Your task to perform on an android device: Search for "logitech g pro" on newegg.com, select the first entry, add it to the cart, then select checkout. Image 0: 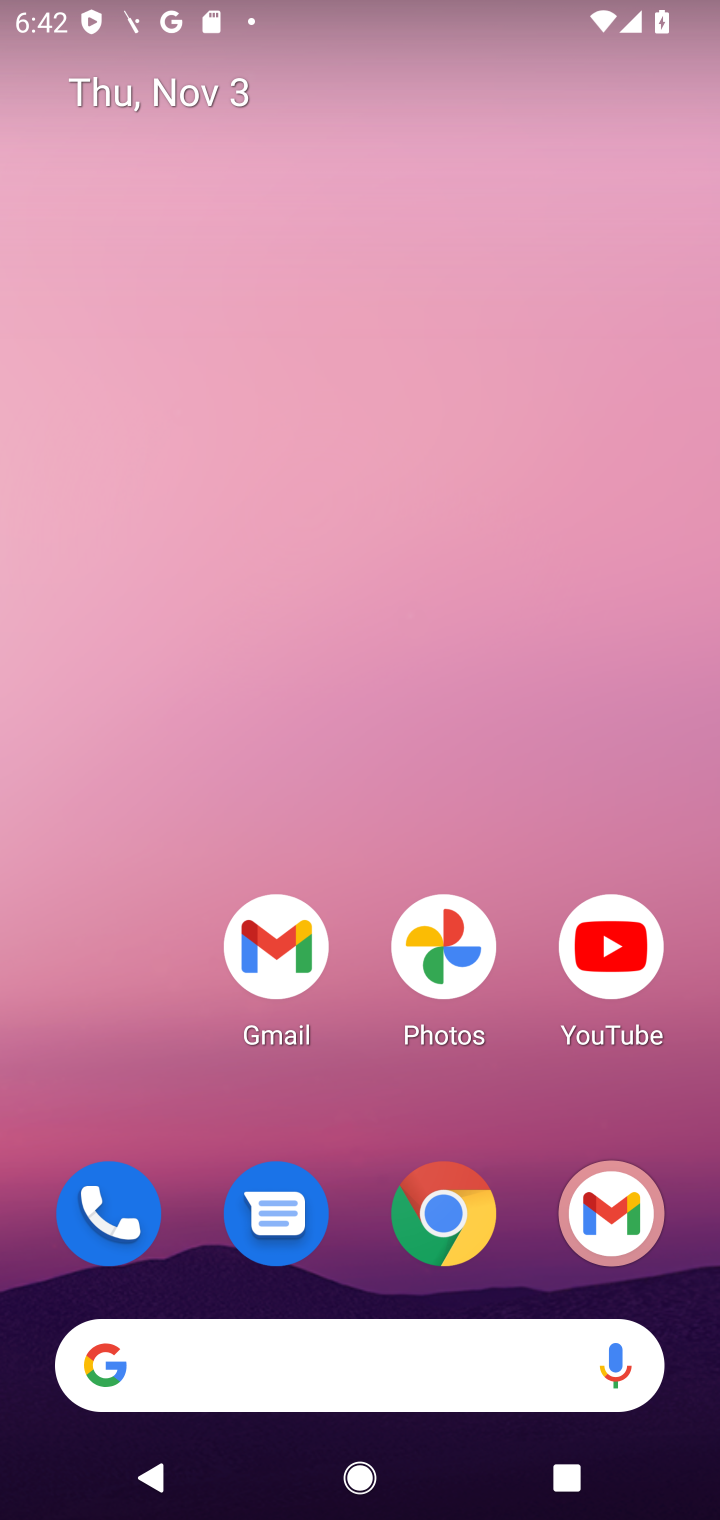
Step 0: click (445, 1236)
Your task to perform on an android device: Search for "logitech g pro" on newegg.com, select the first entry, add it to the cart, then select checkout. Image 1: 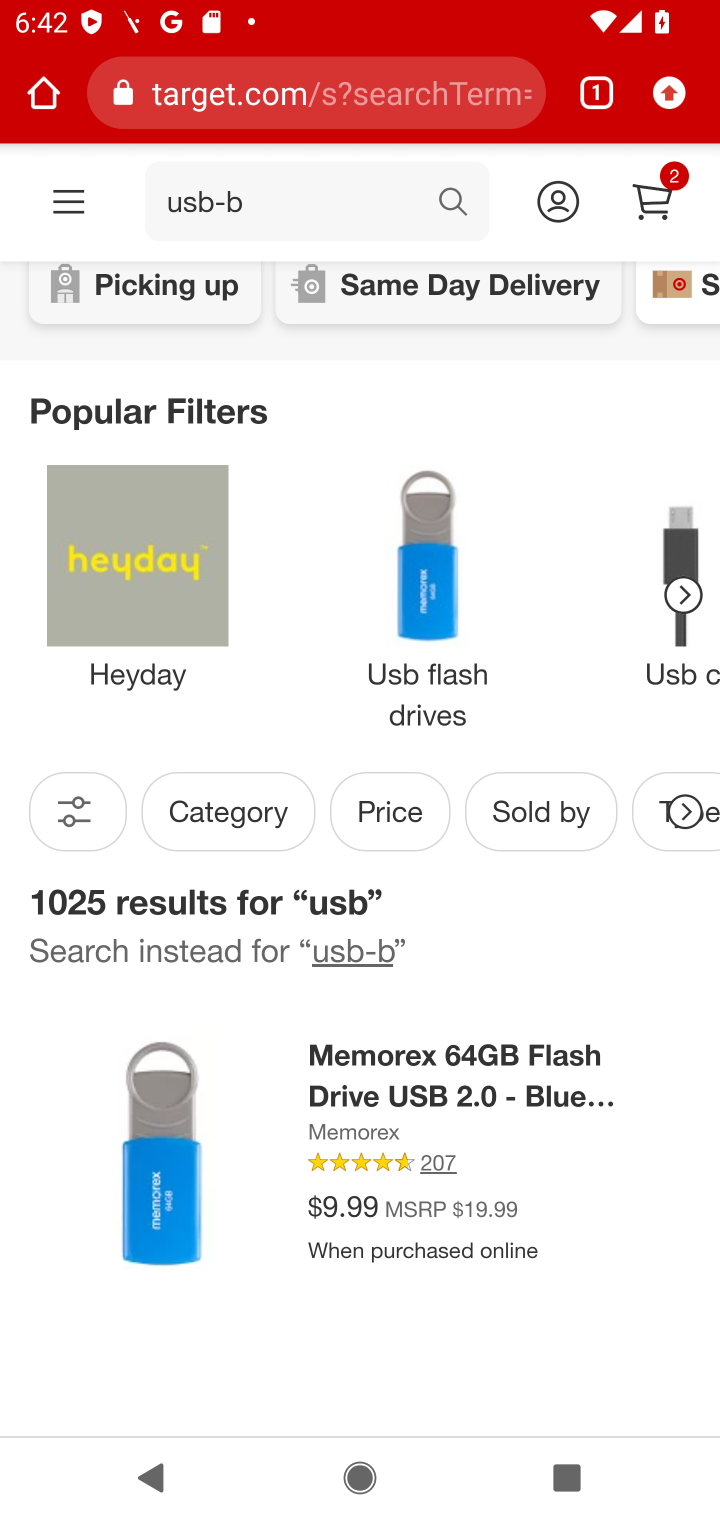
Step 1: click (387, 107)
Your task to perform on an android device: Search for "logitech g pro" on newegg.com, select the first entry, add it to the cart, then select checkout. Image 2: 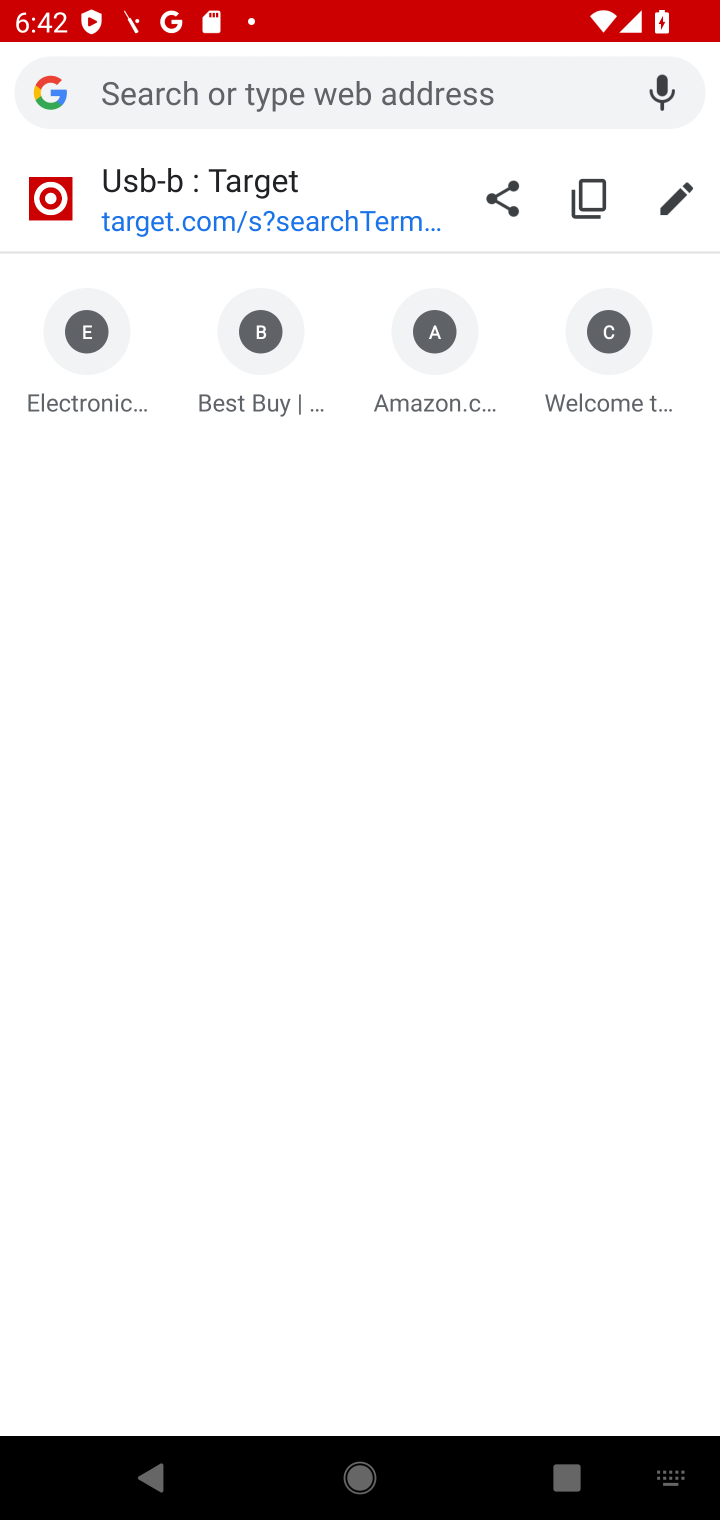
Step 2: type "newegg.com"
Your task to perform on an android device: Search for "logitech g pro" on newegg.com, select the first entry, add it to the cart, then select checkout. Image 3: 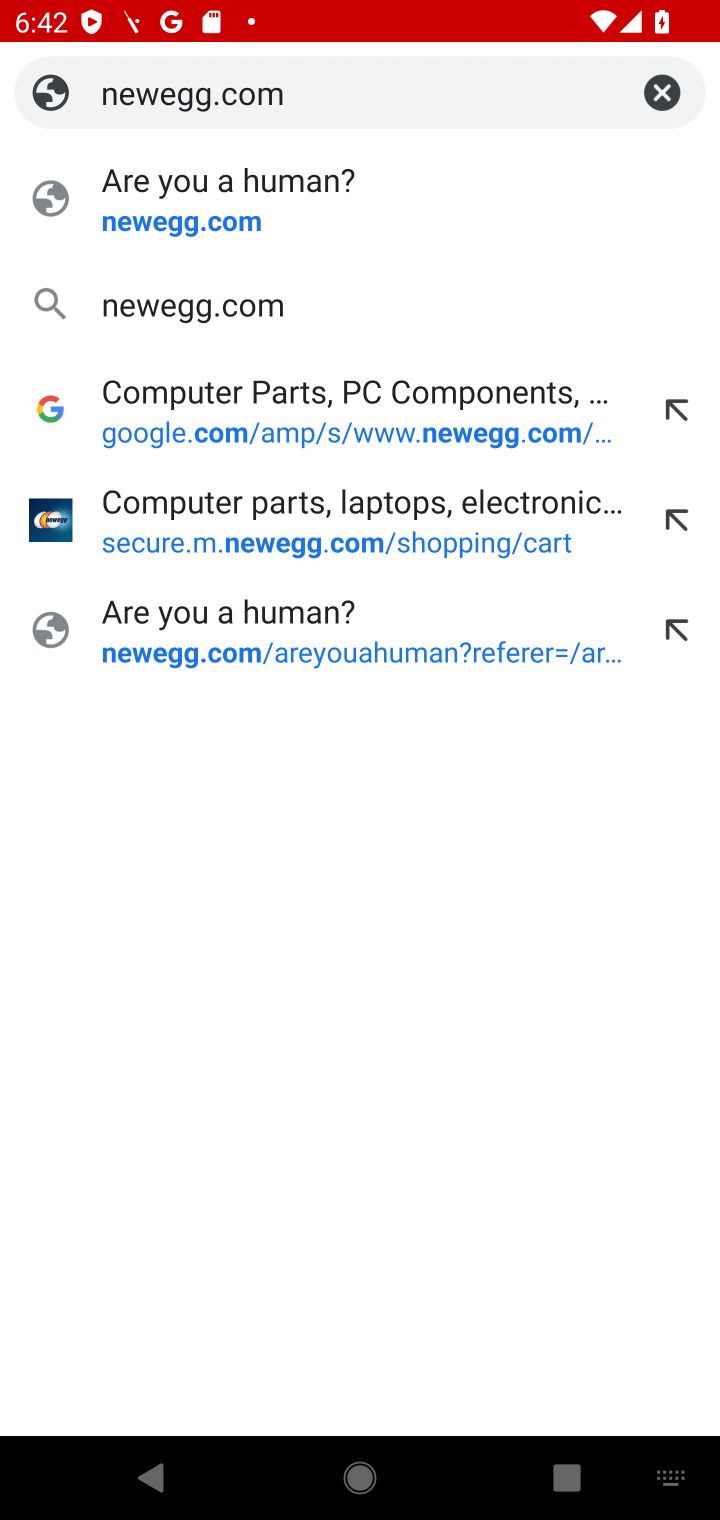
Step 3: click (157, 308)
Your task to perform on an android device: Search for "logitech g pro" on newegg.com, select the first entry, add it to the cart, then select checkout. Image 4: 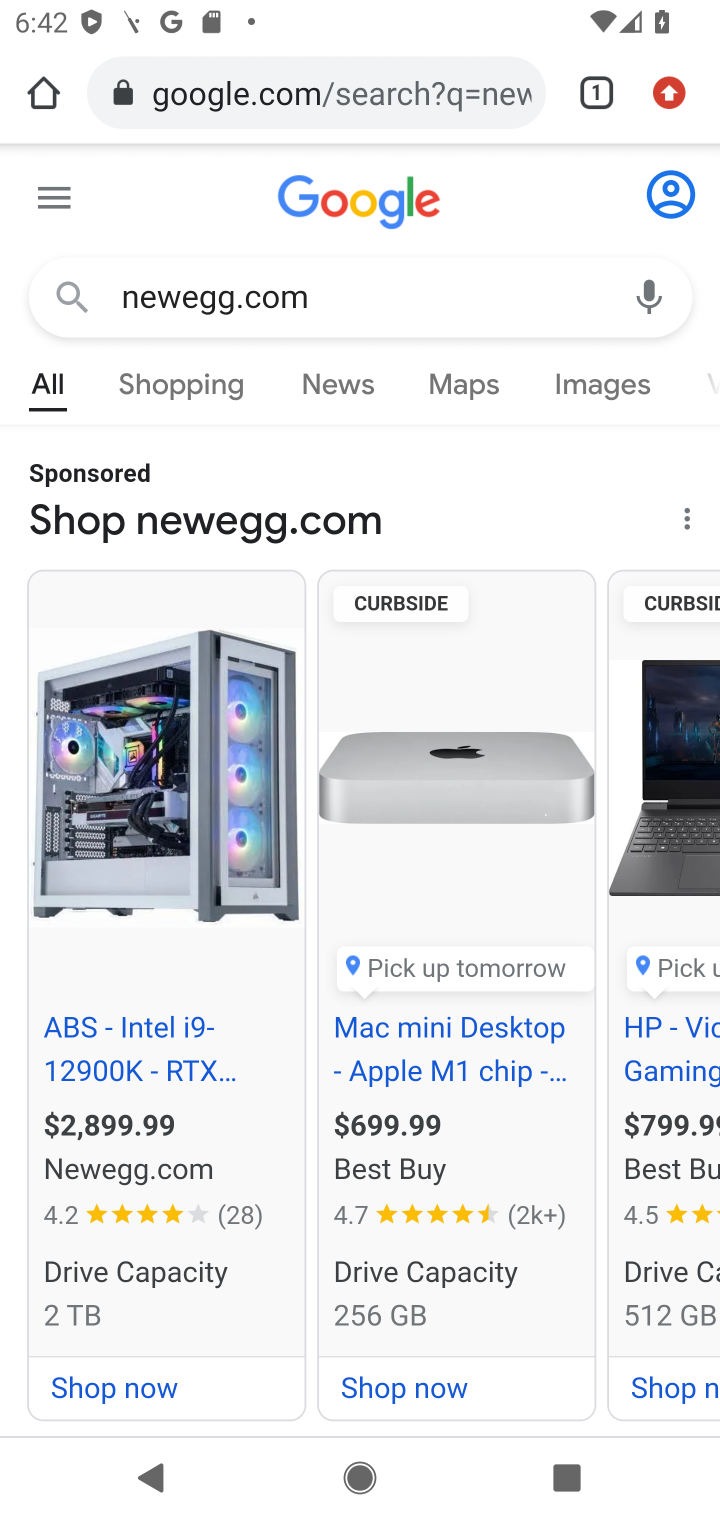
Step 4: drag from (249, 1084) to (239, 271)
Your task to perform on an android device: Search for "logitech g pro" on newegg.com, select the first entry, add it to the cart, then select checkout. Image 5: 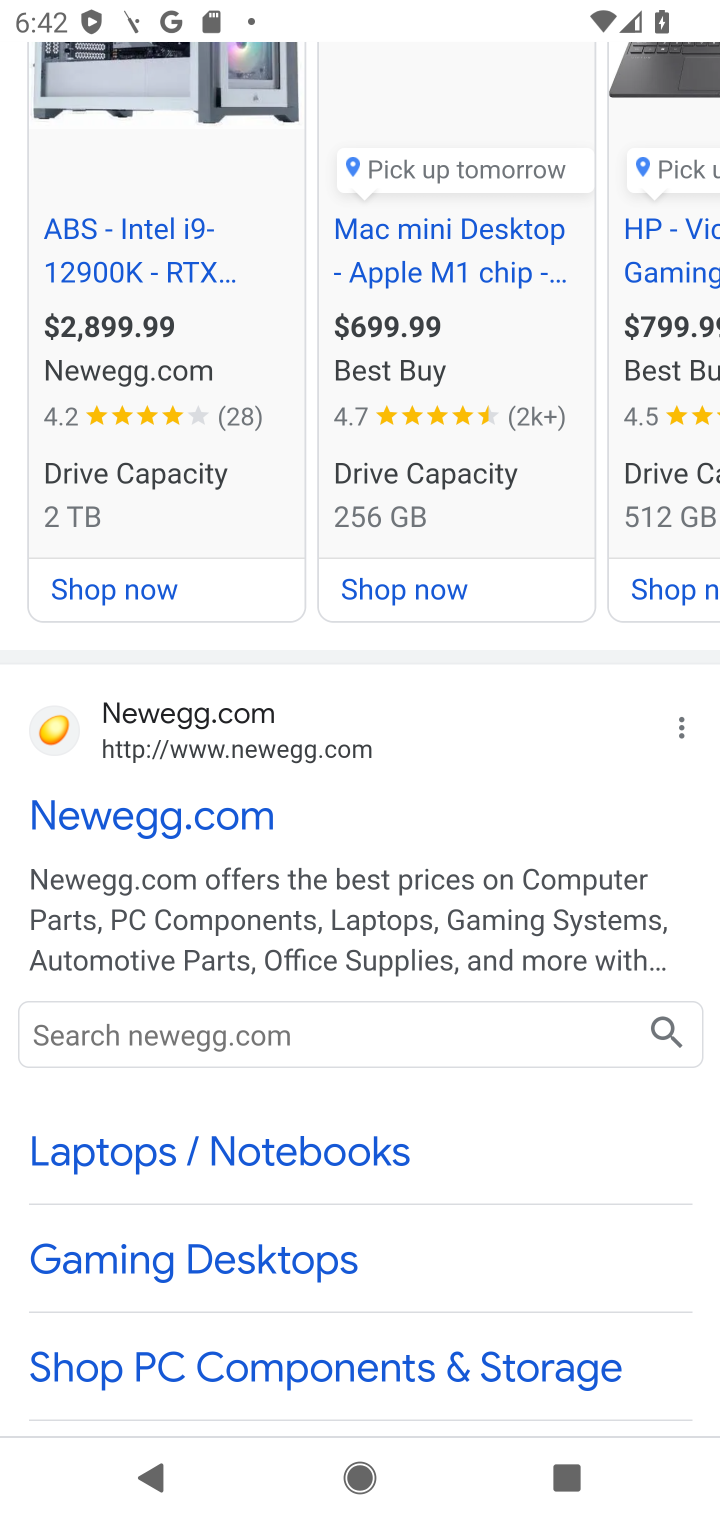
Step 5: click (124, 837)
Your task to perform on an android device: Search for "logitech g pro" on newegg.com, select the first entry, add it to the cart, then select checkout. Image 6: 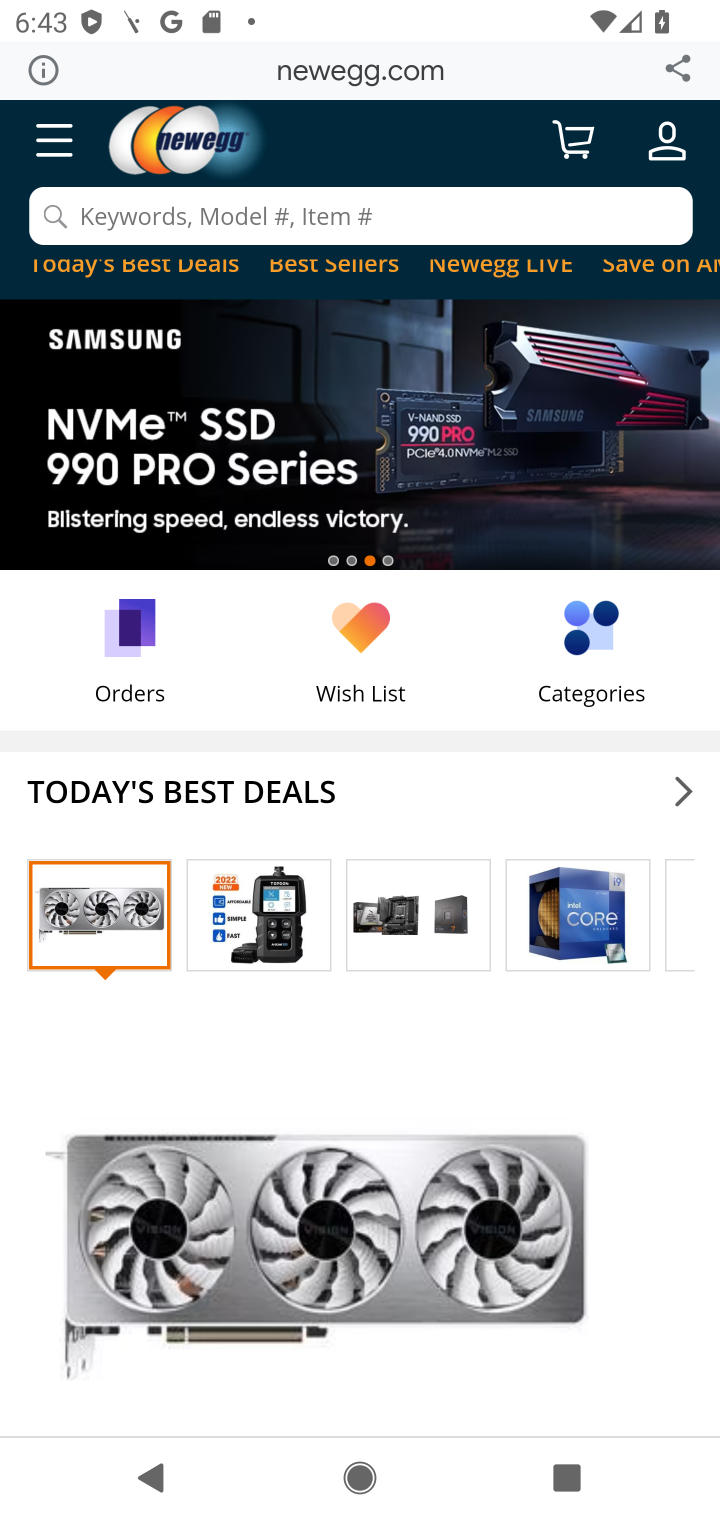
Step 6: click (156, 216)
Your task to perform on an android device: Search for "logitech g pro" on newegg.com, select the first entry, add it to the cart, then select checkout. Image 7: 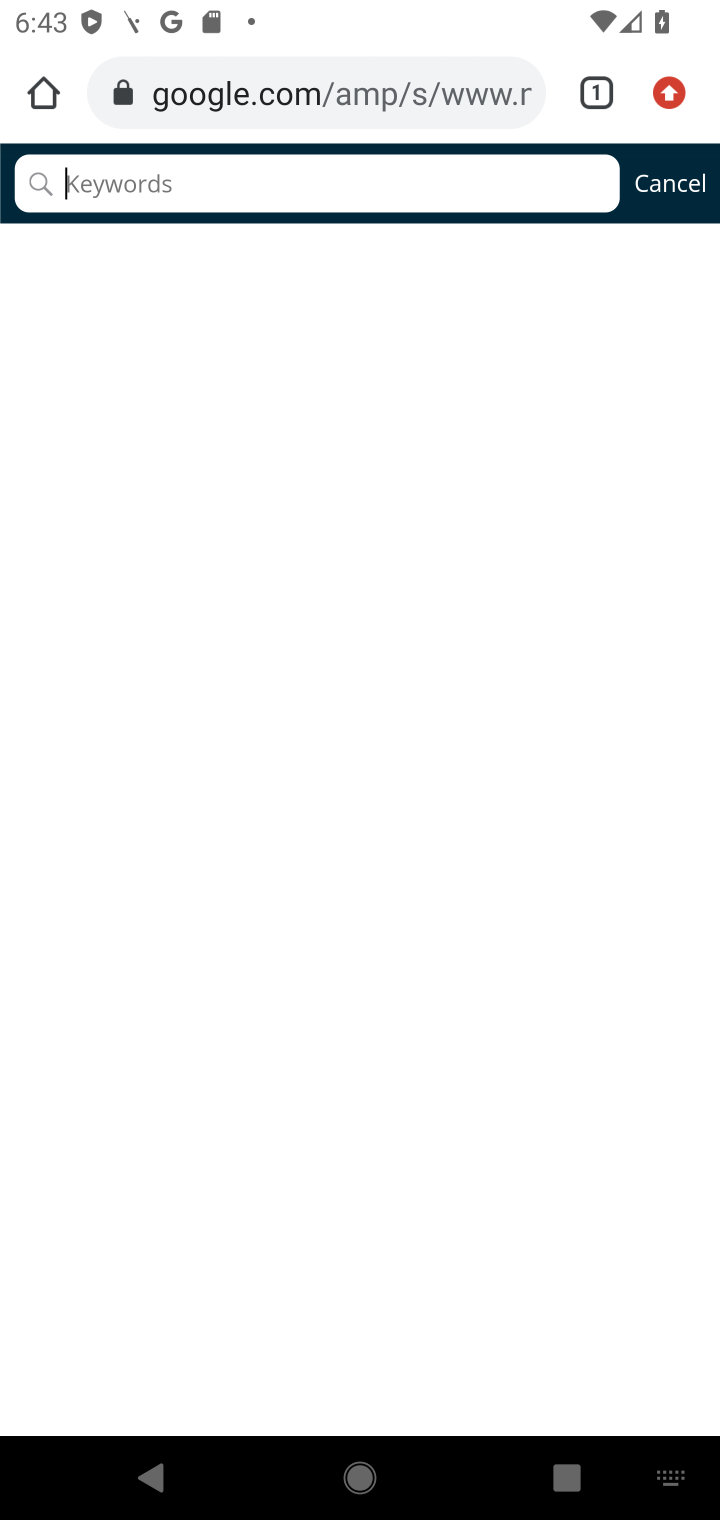
Step 7: type "logitech g pro"
Your task to perform on an android device: Search for "logitech g pro" on newegg.com, select the first entry, add it to the cart, then select checkout. Image 8: 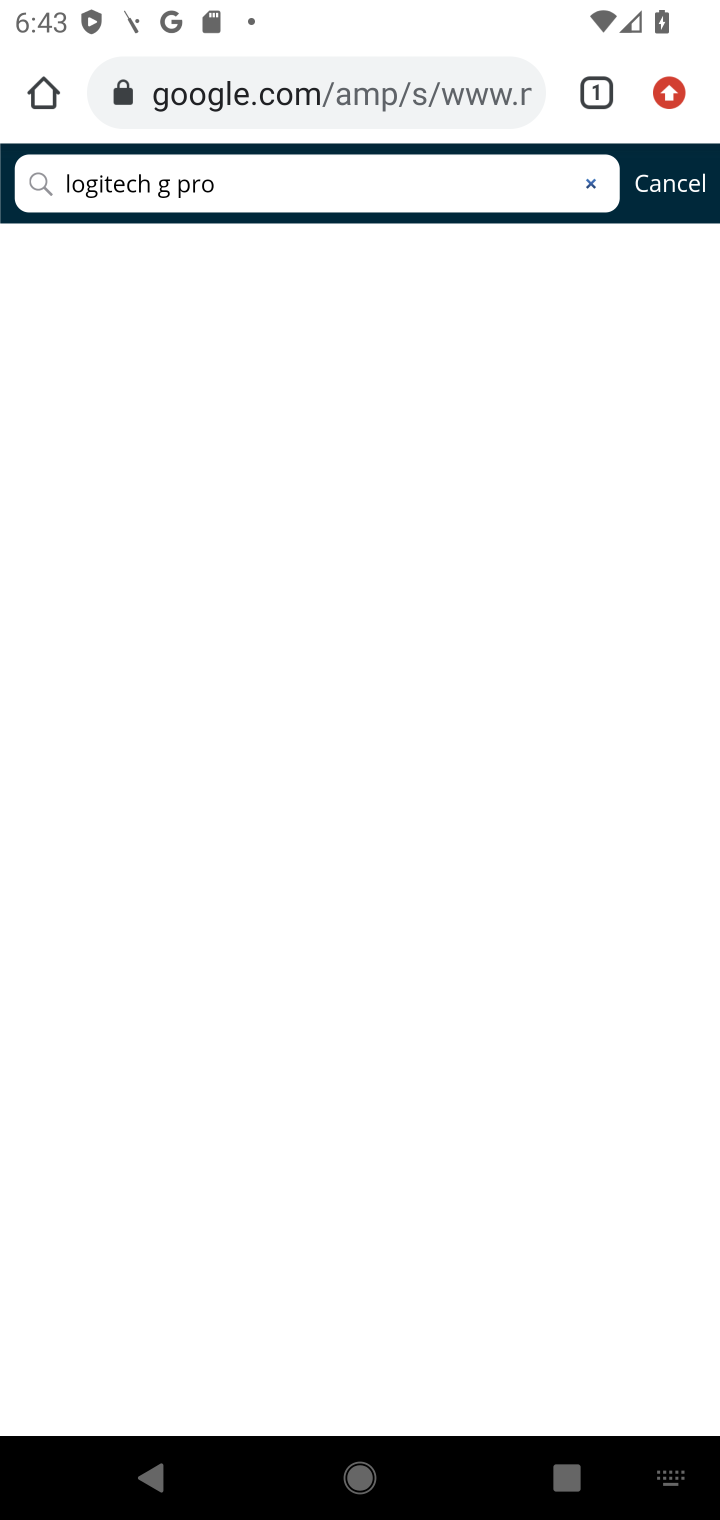
Step 8: click (38, 175)
Your task to perform on an android device: Search for "logitech g pro" on newegg.com, select the first entry, add it to the cart, then select checkout. Image 9: 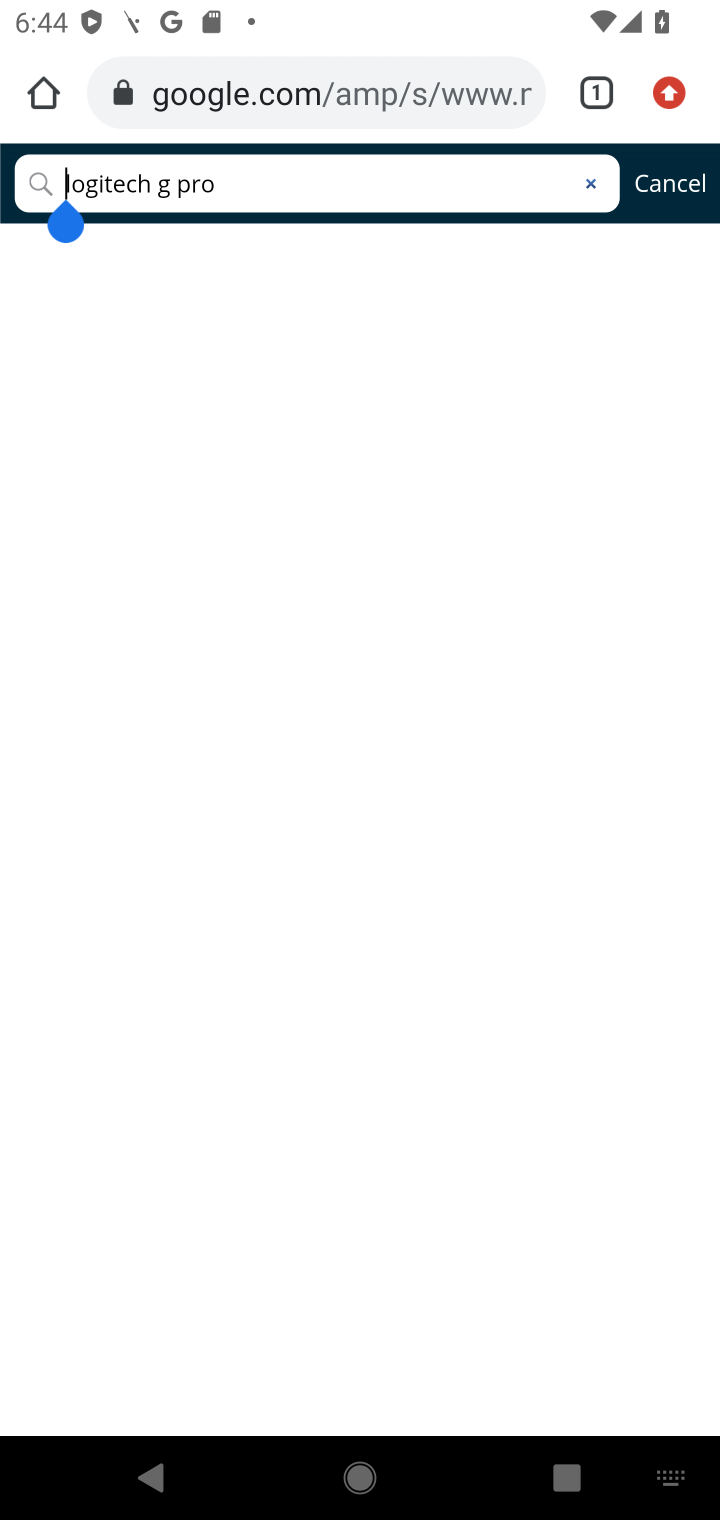
Step 9: task complete